Your task to perform on an android device: allow cookies in the chrome app Image 0: 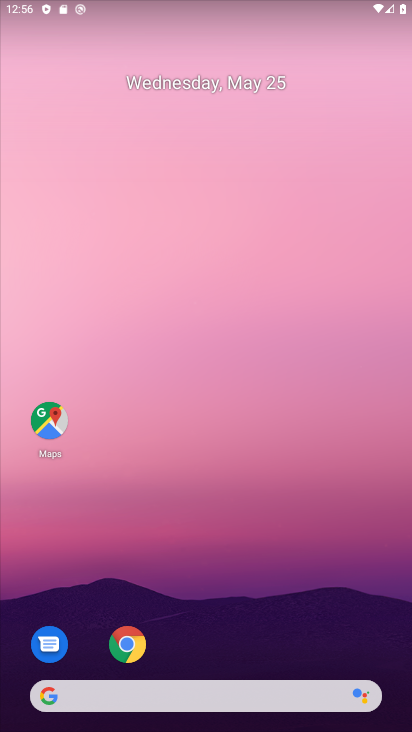
Step 0: click (125, 670)
Your task to perform on an android device: allow cookies in the chrome app Image 1: 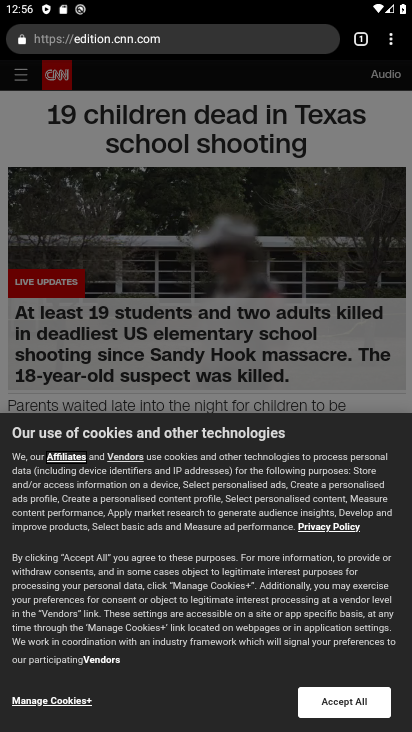
Step 1: click (392, 45)
Your task to perform on an android device: allow cookies in the chrome app Image 2: 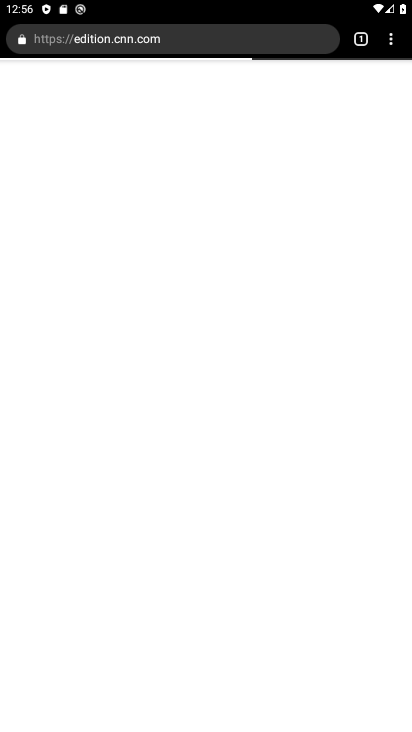
Step 2: click (391, 46)
Your task to perform on an android device: allow cookies in the chrome app Image 3: 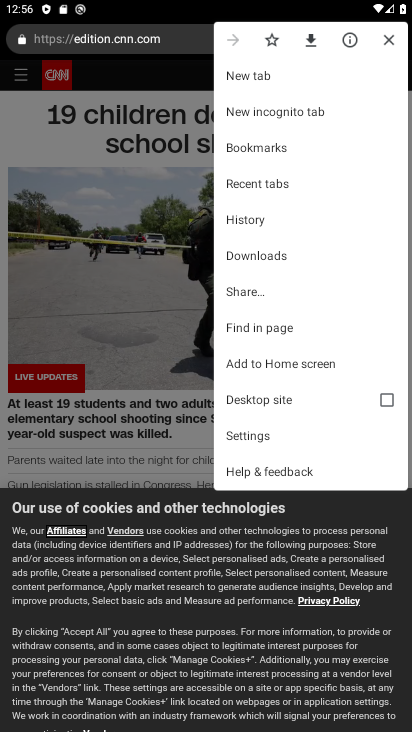
Step 3: click (281, 450)
Your task to perform on an android device: allow cookies in the chrome app Image 4: 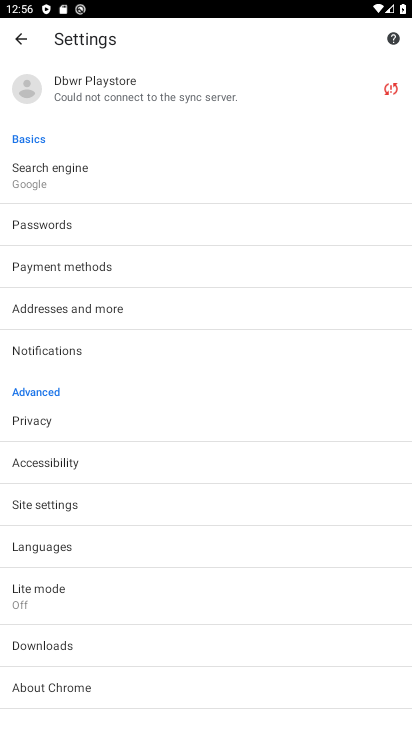
Step 4: click (61, 507)
Your task to perform on an android device: allow cookies in the chrome app Image 5: 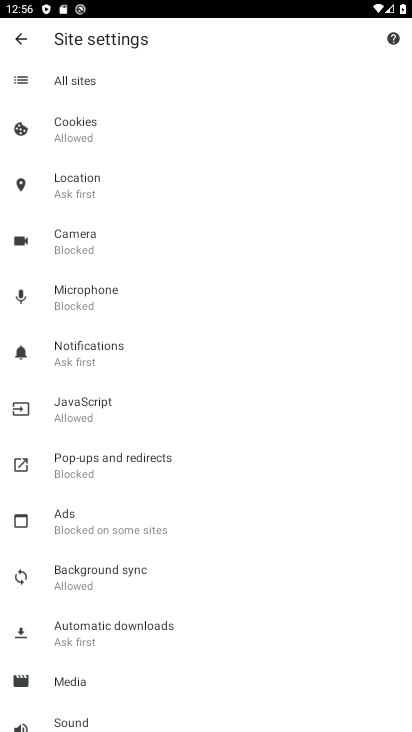
Step 5: task complete